Your task to perform on an android device: stop showing notifications on the lock screen Image 0: 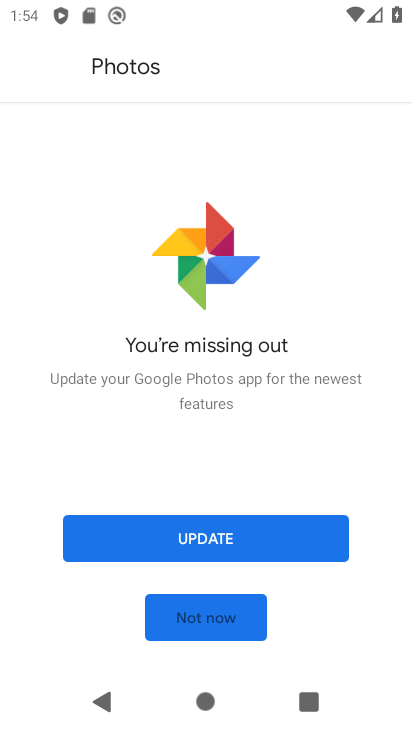
Step 0: press home button
Your task to perform on an android device: stop showing notifications on the lock screen Image 1: 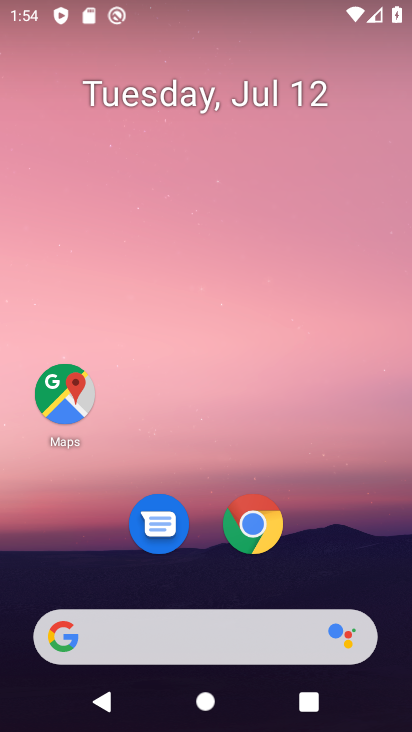
Step 1: drag from (330, 513) to (340, 24)
Your task to perform on an android device: stop showing notifications on the lock screen Image 2: 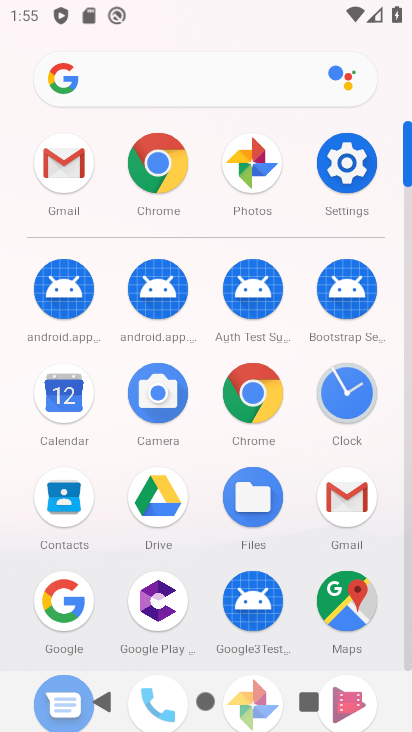
Step 2: click (337, 157)
Your task to perform on an android device: stop showing notifications on the lock screen Image 3: 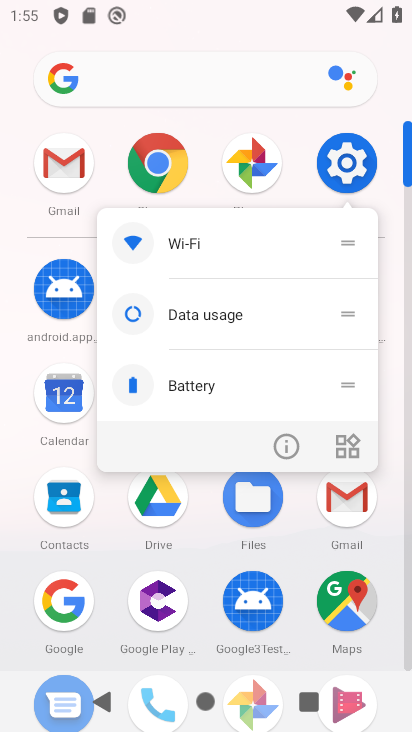
Step 3: click (339, 160)
Your task to perform on an android device: stop showing notifications on the lock screen Image 4: 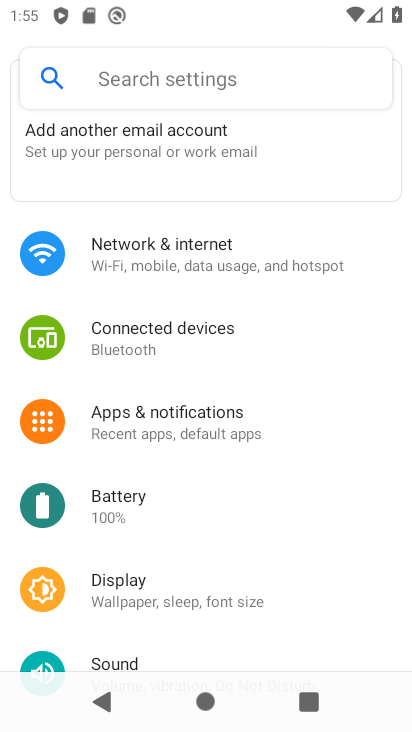
Step 4: click (211, 416)
Your task to perform on an android device: stop showing notifications on the lock screen Image 5: 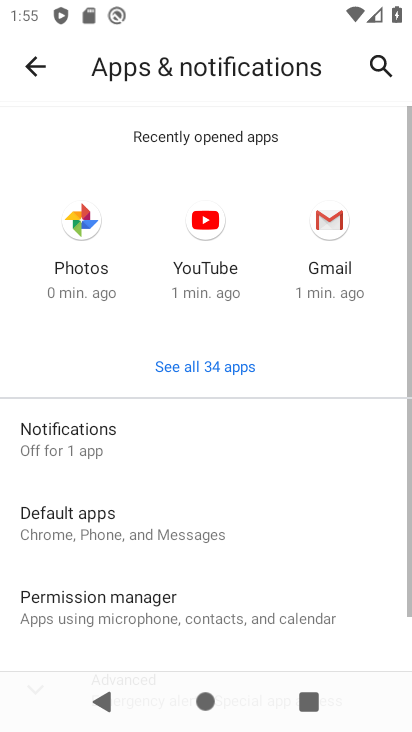
Step 5: click (88, 434)
Your task to perform on an android device: stop showing notifications on the lock screen Image 6: 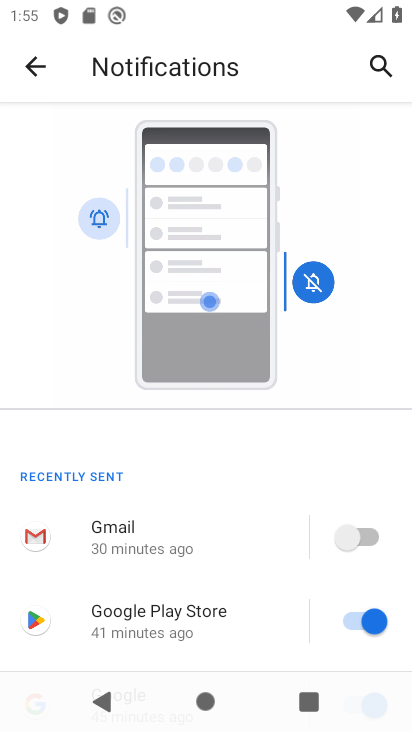
Step 6: drag from (204, 584) to (239, 166)
Your task to perform on an android device: stop showing notifications on the lock screen Image 7: 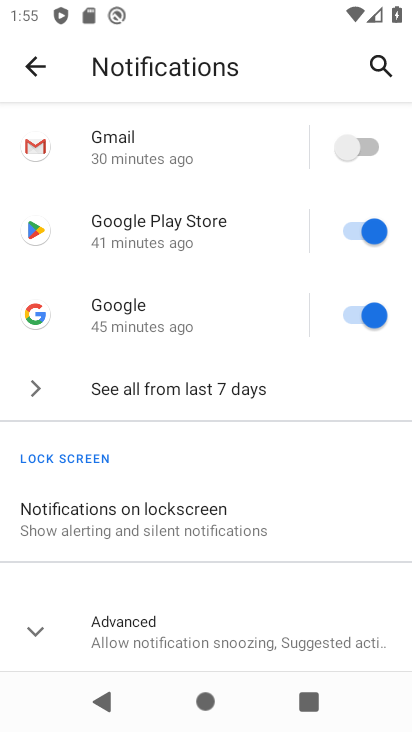
Step 7: click (212, 522)
Your task to perform on an android device: stop showing notifications on the lock screen Image 8: 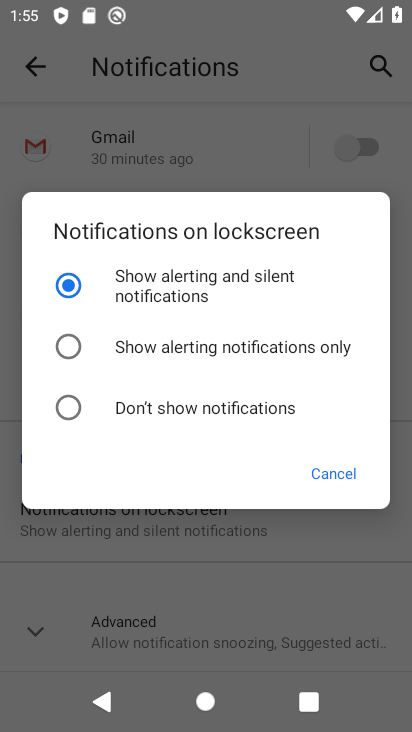
Step 8: click (71, 404)
Your task to perform on an android device: stop showing notifications on the lock screen Image 9: 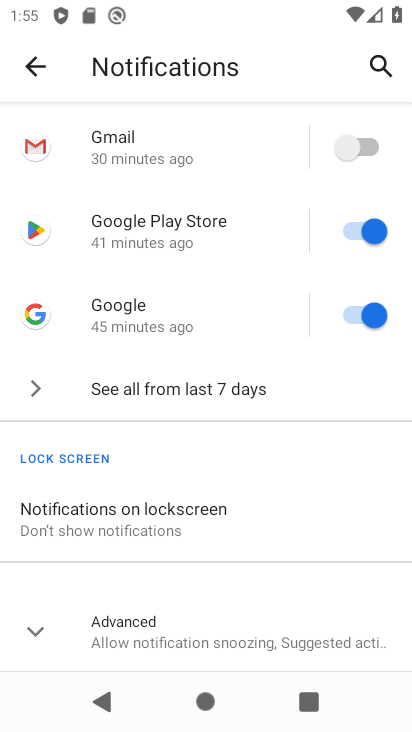
Step 9: task complete